Your task to perform on an android device: turn on improve location accuracy Image 0: 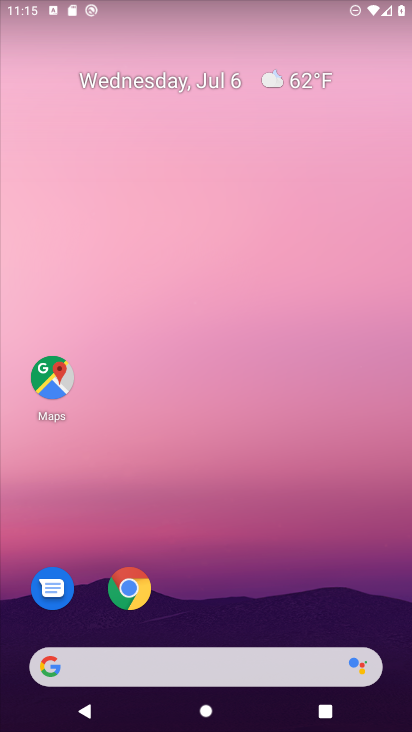
Step 0: drag from (356, 598) to (328, 156)
Your task to perform on an android device: turn on improve location accuracy Image 1: 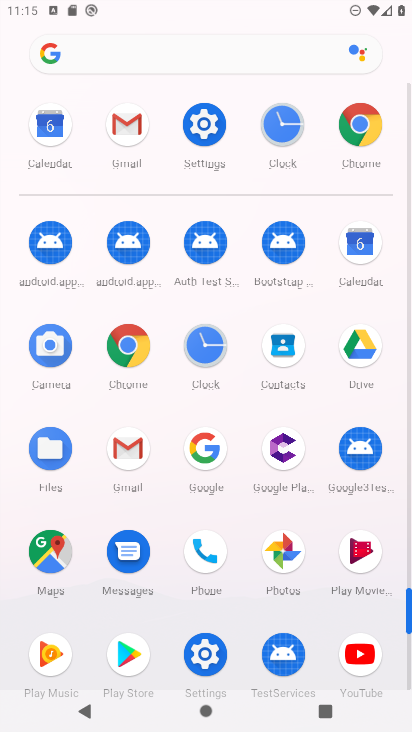
Step 1: click (204, 658)
Your task to perform on an android device: turn on improve location accuracy Image 2: 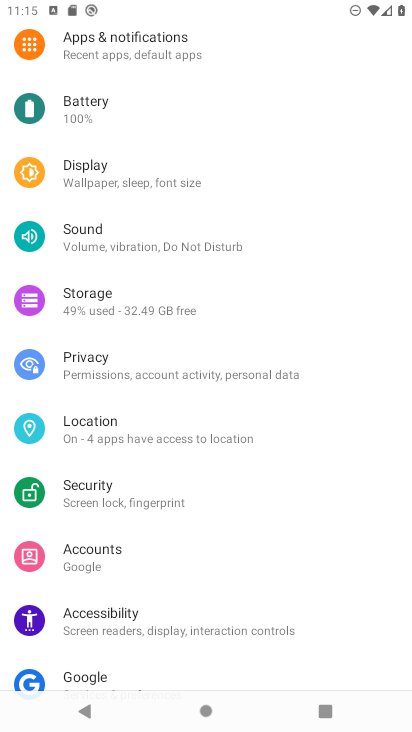
Step 2: click (89, 434)
Your task to perform on an android device: turn on improve location accuracy Image 3: 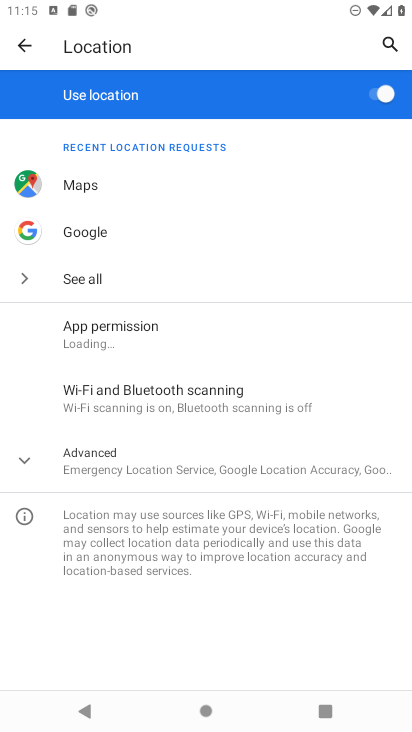
Step 3: click (101, 457)
Your task to perform on an android device: turn on improve location accuracy Image 4: 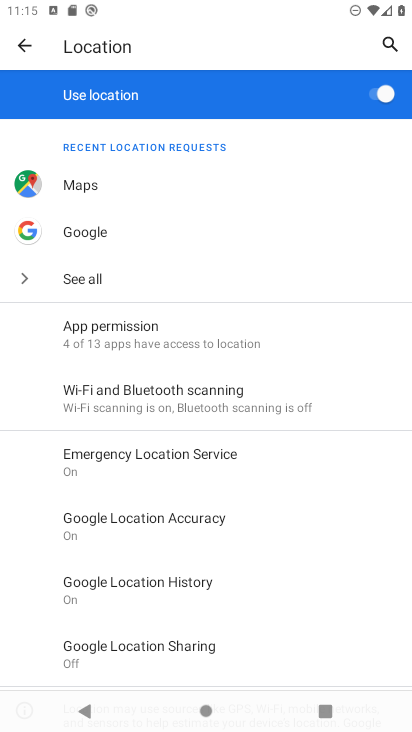
Step 4: click (110, 513)
Your task to perform on an android device: turn on improve location accuracy Image 5: 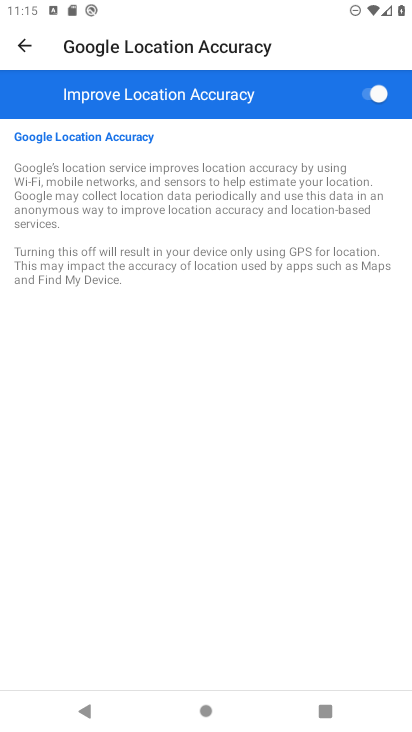
Step 5: task complete